Your task to perform on an android device: Open my contact list Image 0: 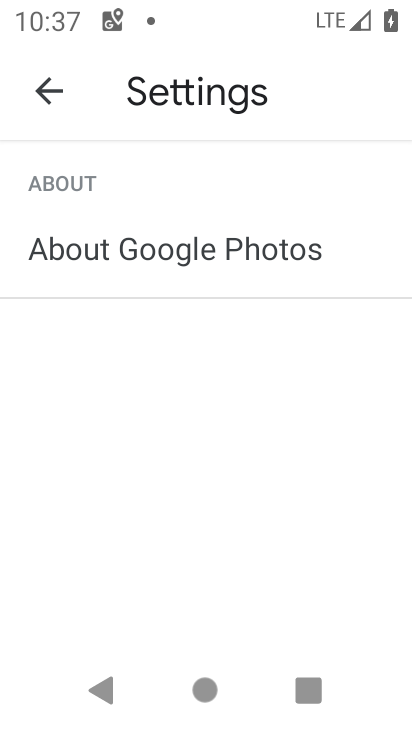
Step 0: press home button
Your task to perform on an android device: Open my contact list Image 1: 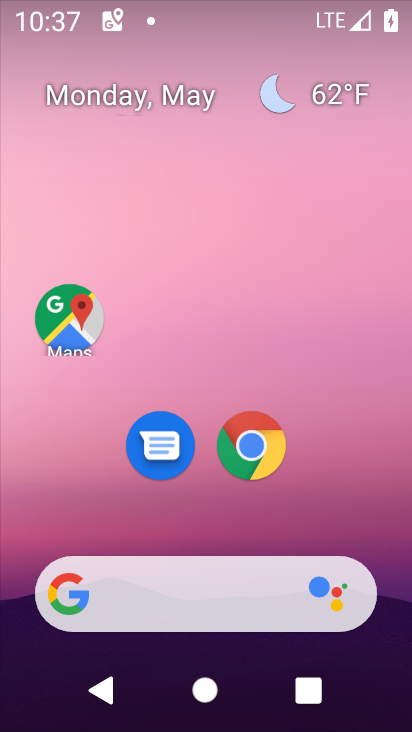
Step 1: drag from (407, 640) to (247, 101)
Your task to perform on an android device: Open my contact list Image 2: 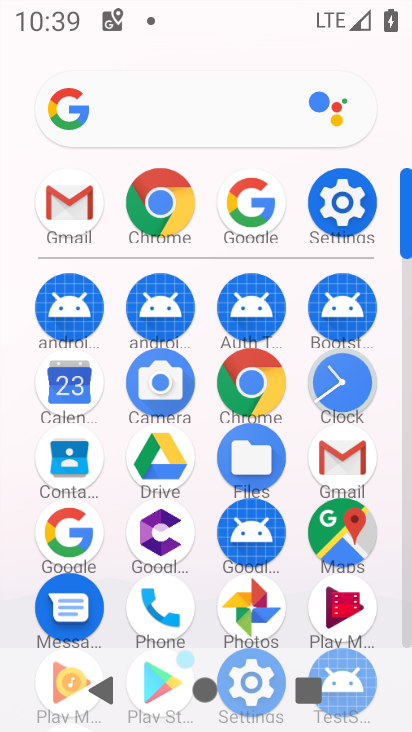
Step 2: click (65, 465)
Your task to perform on an android device: Open my contact list Image 3: 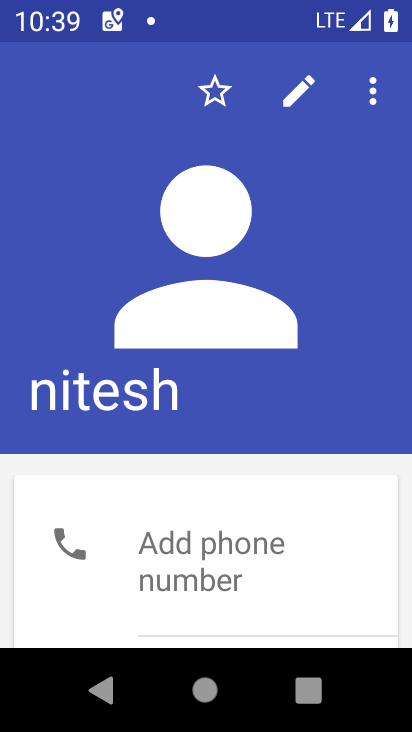
Step 3: task complete